Your task to perform on an android device: turn on airplane mode Image 0: 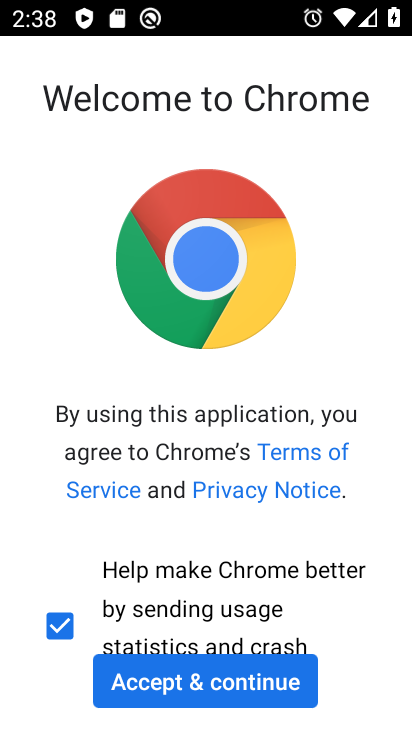
Step 0: press home button
Your task to perform on an android device: turn on airplane mode Image 1: 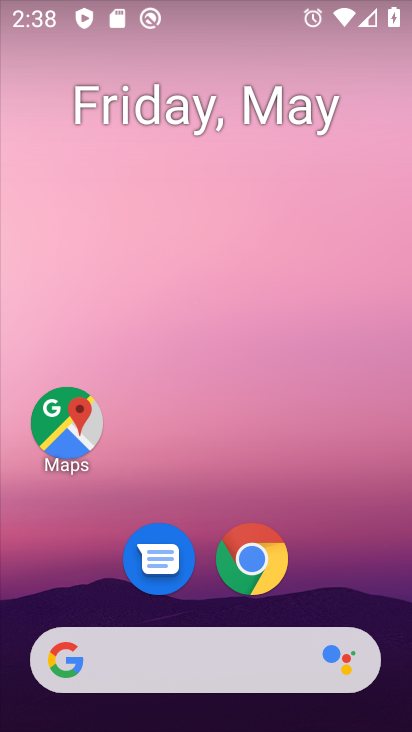
Step 1: drag from (352, 586) to (321, 218)
Your task to perform on an android device: turn on airplane mode Image 2: 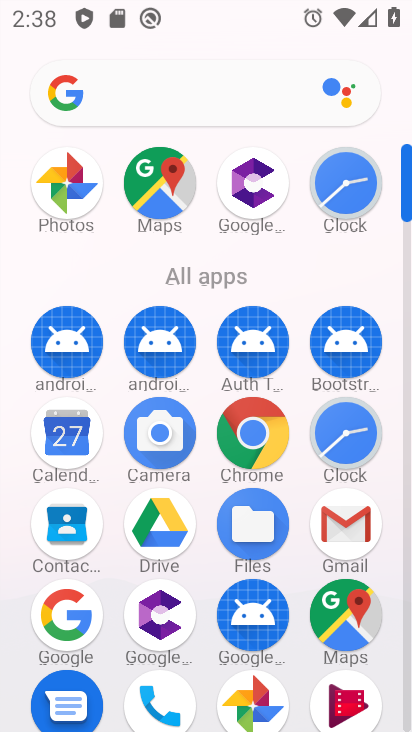
Step 2: click (408, 670)
Your task to perform on an android device: turn on airplane mode Image 3: 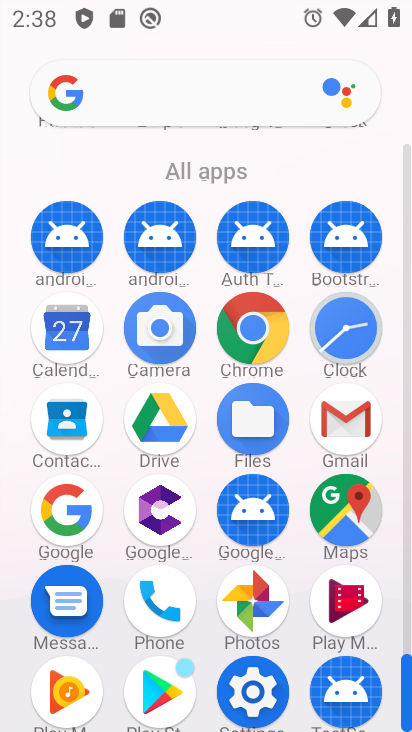
Step 3: click (266, 699)
Your task to perform on an android device: turn on airplane mode Image 4: 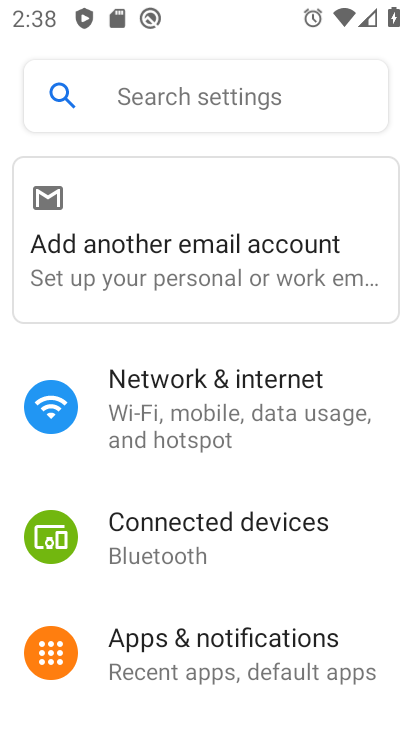
Step 4: click (202, 408)
Your task to perform on an android device: turn on airplane mode Image 5: 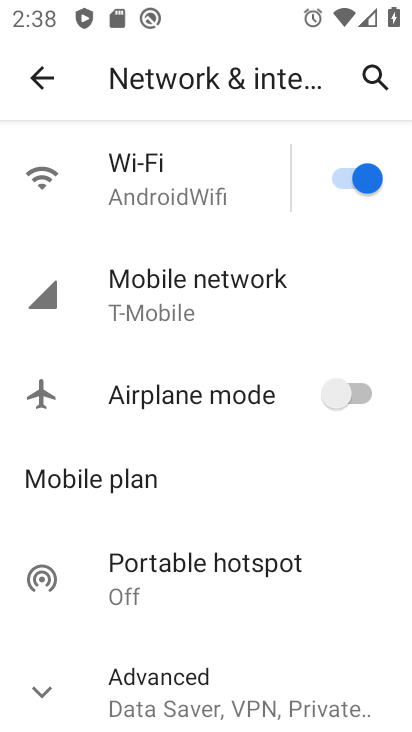
Step 5: click (285, 372)
Your task to perform on an android device: turn on airplane mode Image 6: 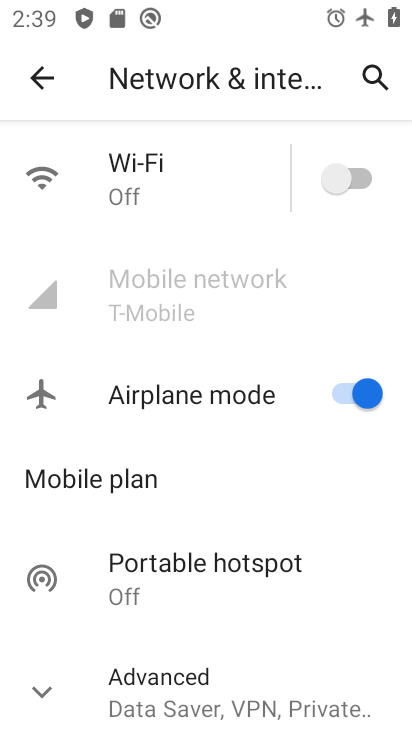
Step 6: task complete